Your task to perform on an android device: Set the phone to "Do not disturb". Image 0: 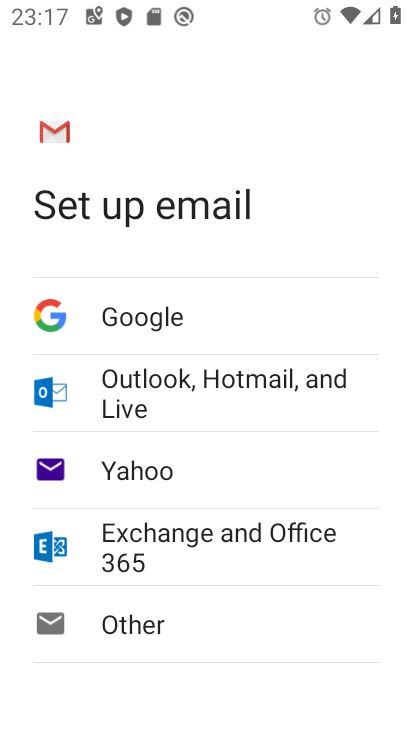
Step 0: drag from (227, 3) to (356, 484)
Your task to perform on an android device: Set the phone to "Do not disturb". Image 1: 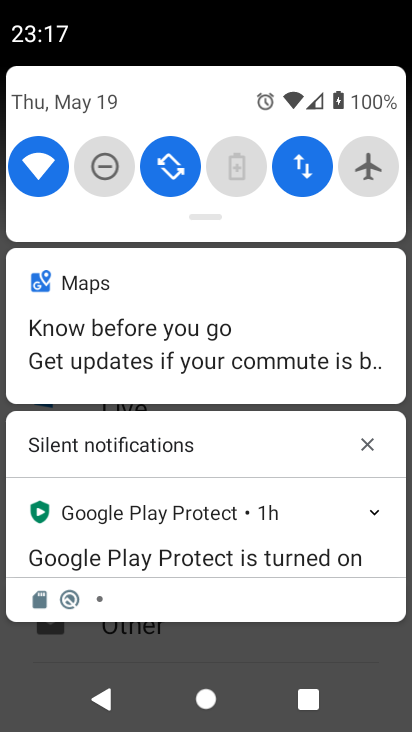
Step 1: click (105, 171)
Your task to perform on an android device: Set the phone to "Do not disturb". Image 2: 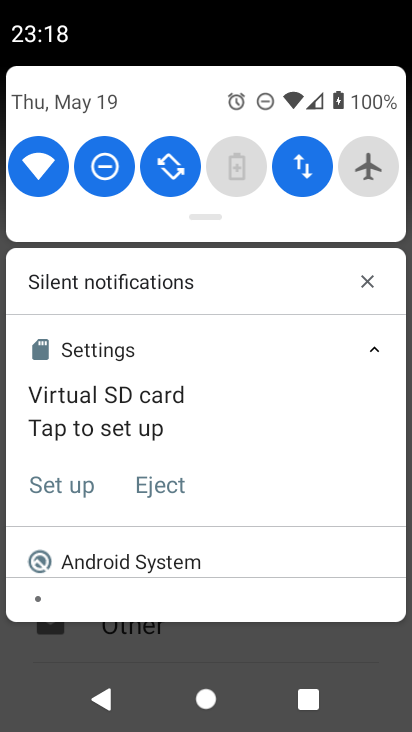
Step 2: task complete